Your task to perform on an android device: Open the phone app and click the voicemail tab. Image 0: 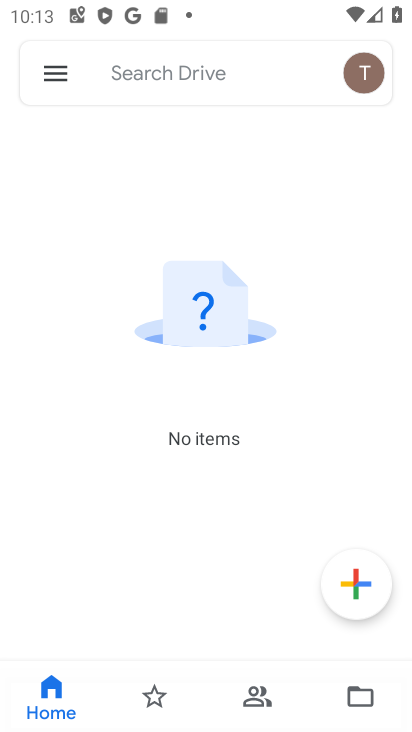
Step 0: press home button
Your task to perform on an android device: Open the phone app and click the voicemail tab. Image 1: 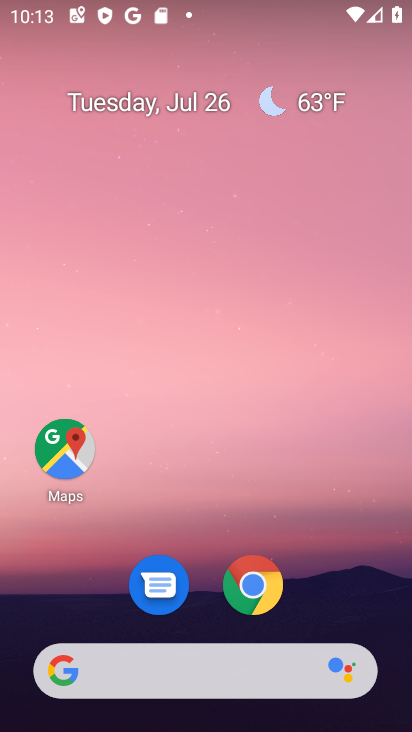
Step 1: drag from (175, 513) to (239, 10)
Your task to perform on an android device: Open the phone app and click the voicemail tab. Image 2: 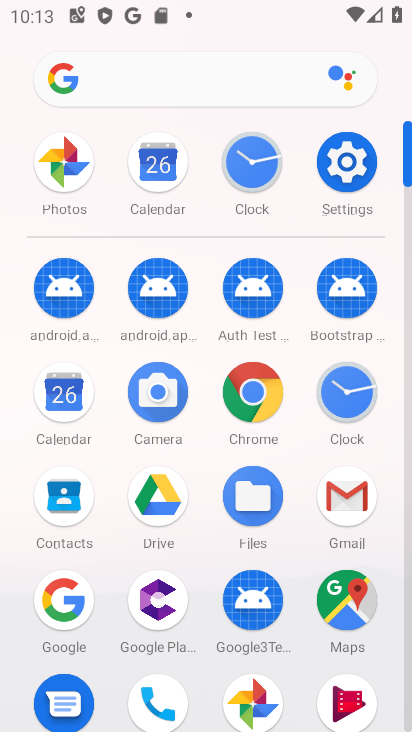
Step 2: click (164, 688)
Your task to perform on an android device: Open the phone app and click the voicemail tab. Image 3: 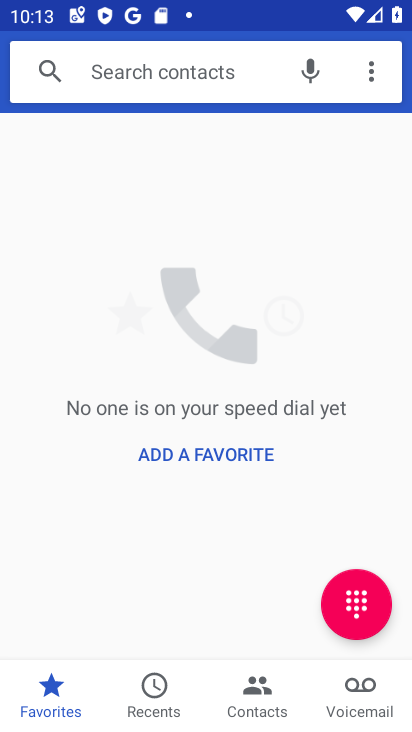
Step 3: click (365, 74)
Your task to perform on an android device: Open the phone app and click the voicemail tab. Image 4: 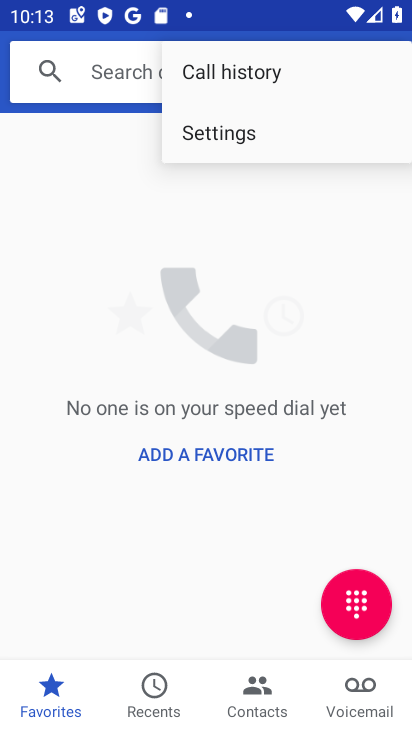
Step 4: click (300, 266)
Your task to perform on an android device: Open the phone app and click the voicemail tab. Image 5: 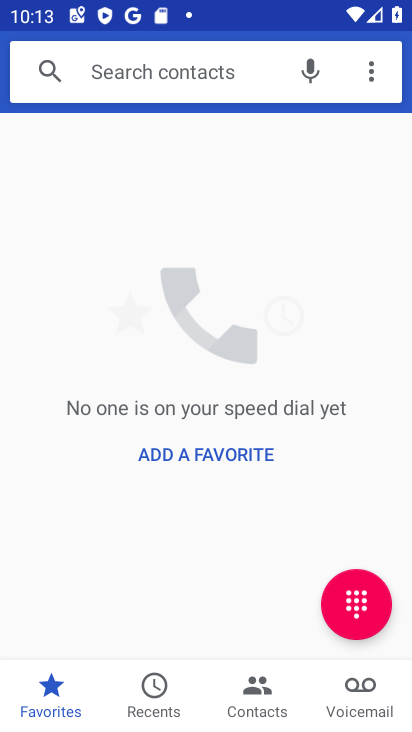
Step 5: click (342, 693)
Your task to perform on an android device: Open the phone app and click the voicemail tab. Image 6: 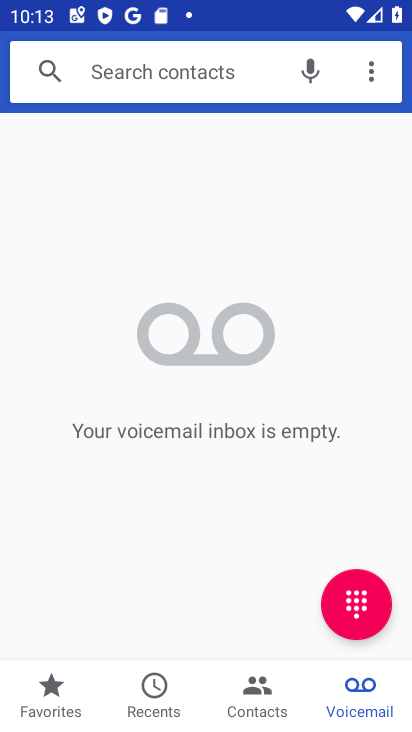
Step 6: task complete